Your task to perform on an android device: change the clock display to analog Image 0: 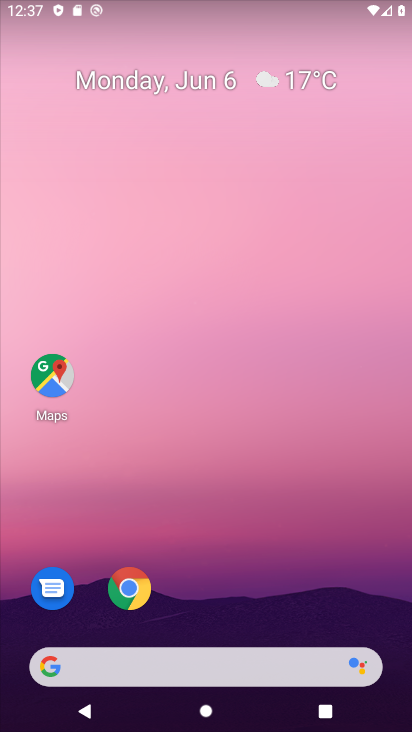
Step 0: drag from (266, 454) to (232, 25)
Your task to perform on an android device: change the clock display to analog Image 1: 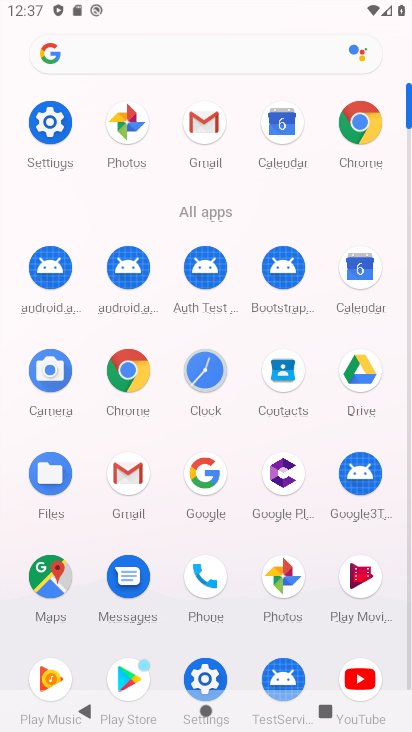
Step 1: click (199, 361)
Your task to perform on an android device: change the clock display to analog Image 2: 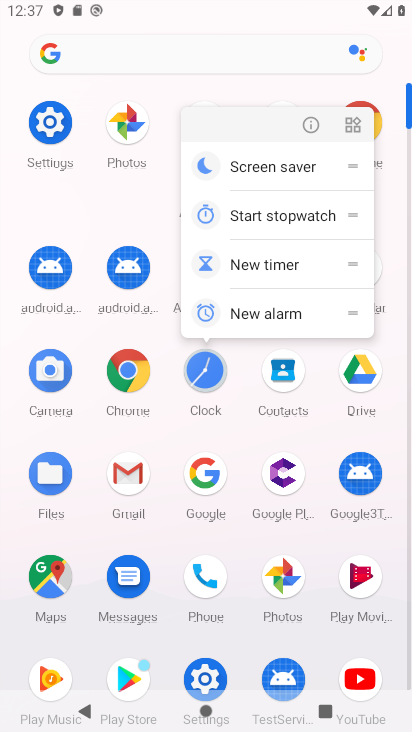
Step 2: click (198, 377)
Your task to perform on an android device: change the clock display to analog Image 3: 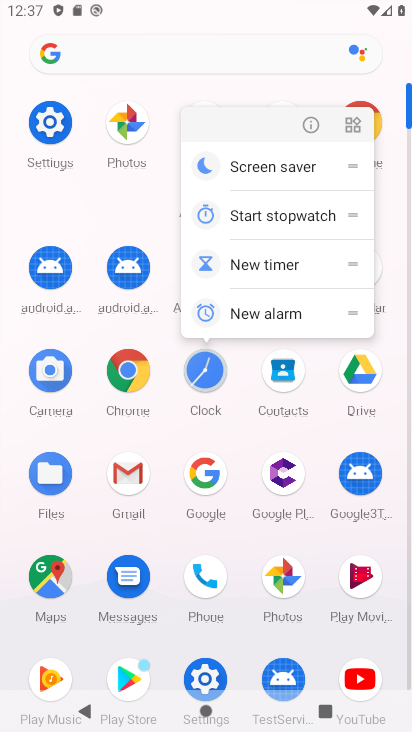
Step 3: click (202, 372)
Your task to perform on an android device: change the clock display to analog Image 4: 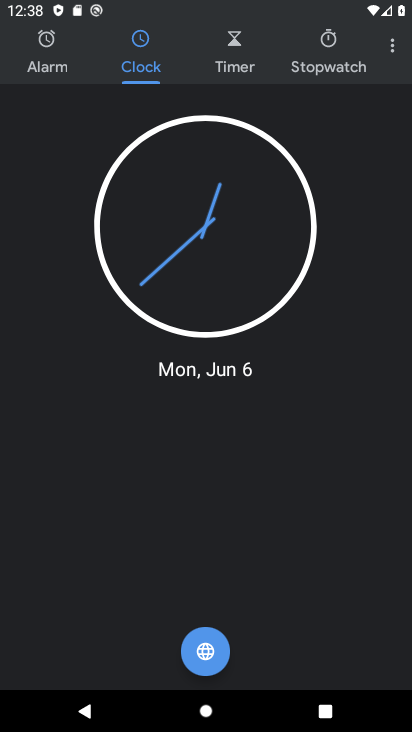
Step 4: click (390, 48)
Your task to perform on an android device: change the clock display to analog Image 5: 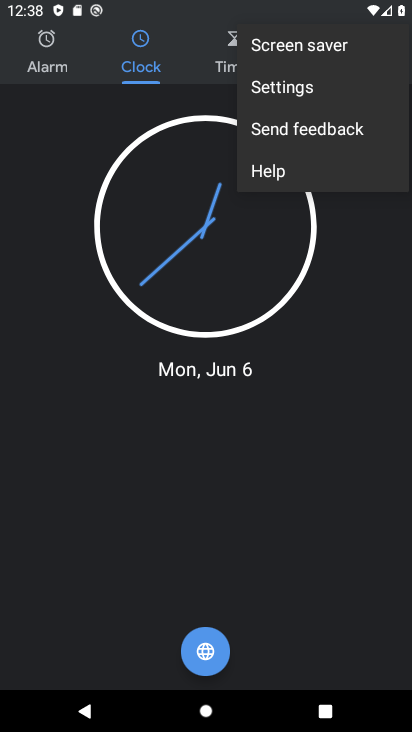
Step 5: click (330, 101)
Your task to perform on an android device: change the clock display to analog Image 6: 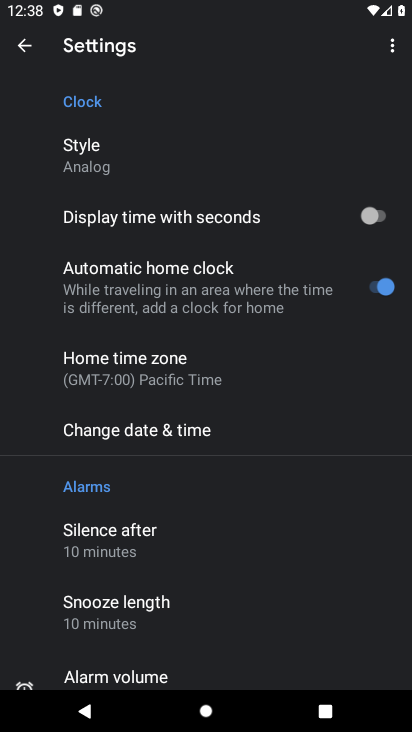
Step 6: task complete